Your task to perform on an android device: toggle notifications settings in the gmail app Image 0: 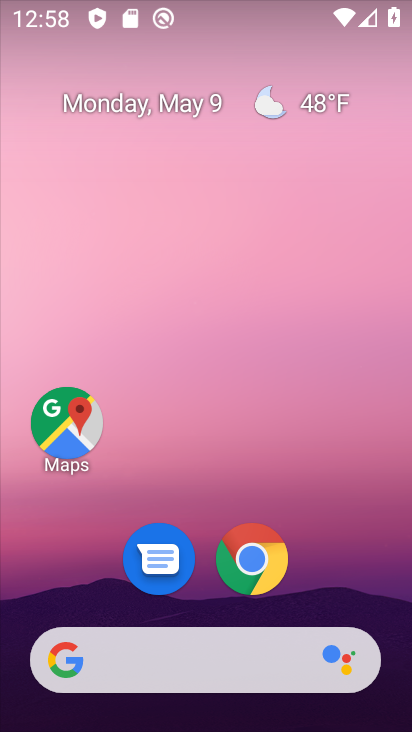
Step 0: drag from (199, 598) to (247, 197)
Your task to perform on an android device: toggle notifications settings in the gmail app Image 1: 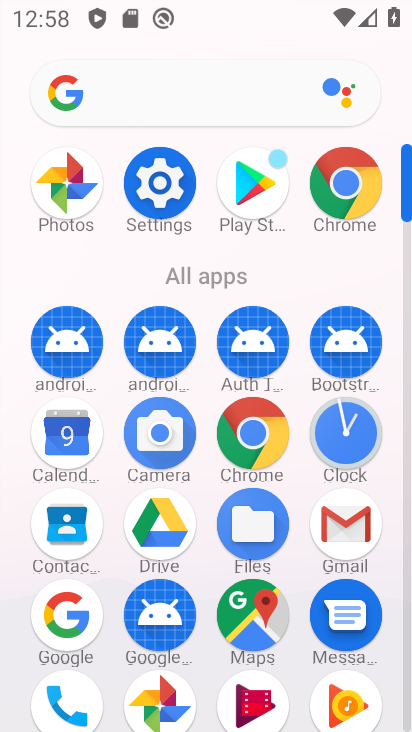
Step 1: click (350, 513)
Your task to perform on an android device: toggle notifications settings in the gmail app Image 2: 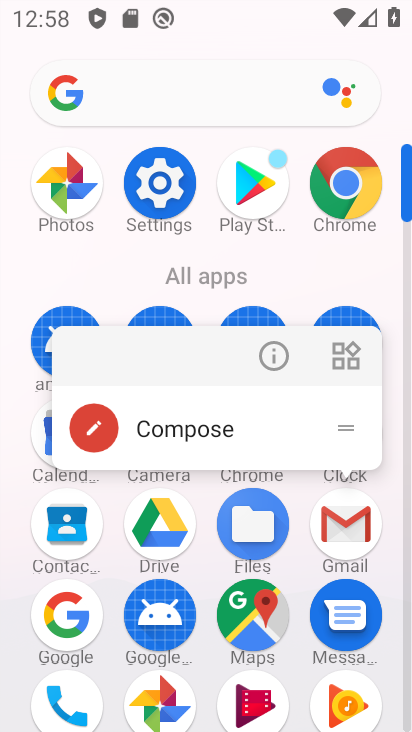
Step 2: click (264, 348)
Your task to perform on an android device: toggle notifications settings in the gmail app Image 3: 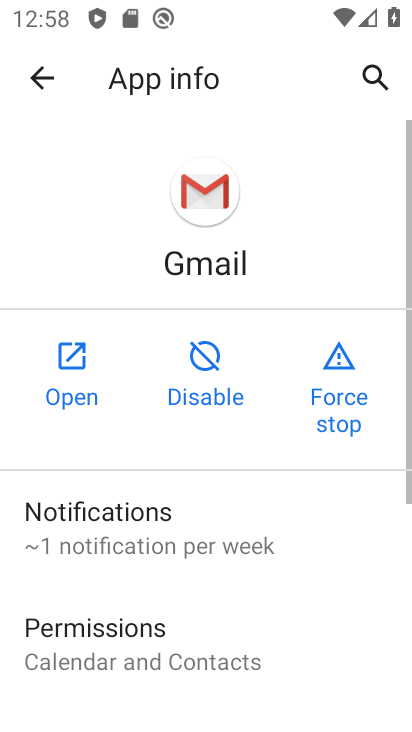
Step 3: click (68, 345)
Your task to perform on an android device: toggle notifications settings in the gmail app Image 4: 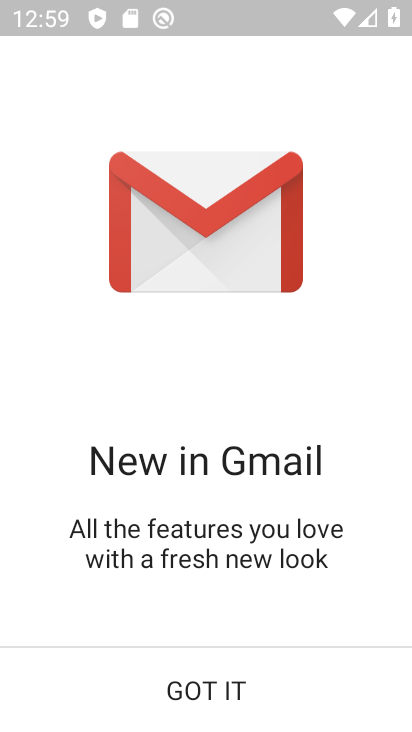
Step 4: click (226, 692)
Your task to perform on an android device: toggle notifications settings in the gmail app Image 5: 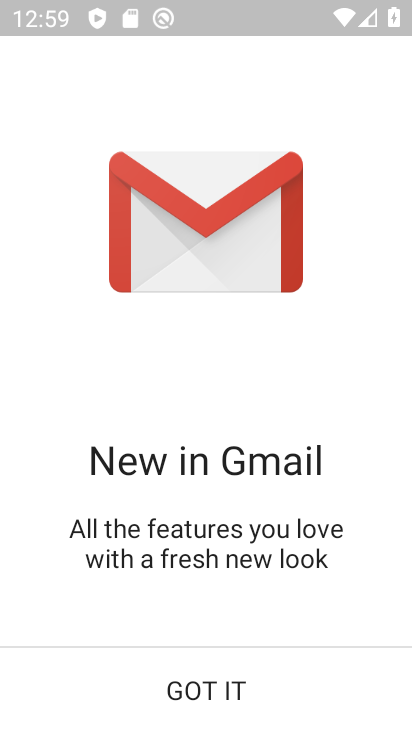
Step 5: click (226, 692)
Your task to perform on an android device: toggle notifications settings in the gmail app Image 6: 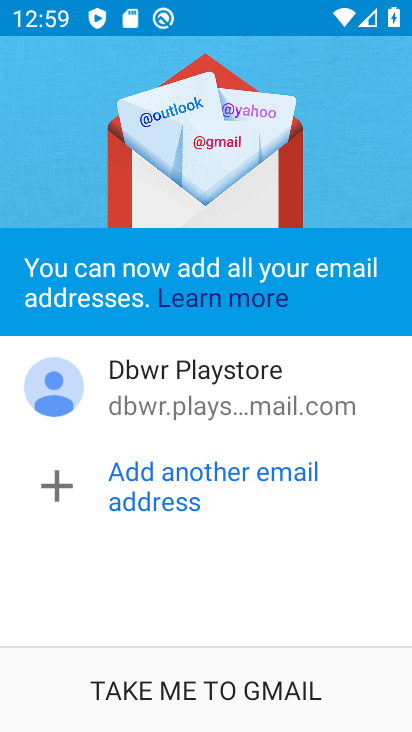
Step 6: click (195, 675)
Your task to perform on an android device: toggle notifications settings in the gmail app Image 7: 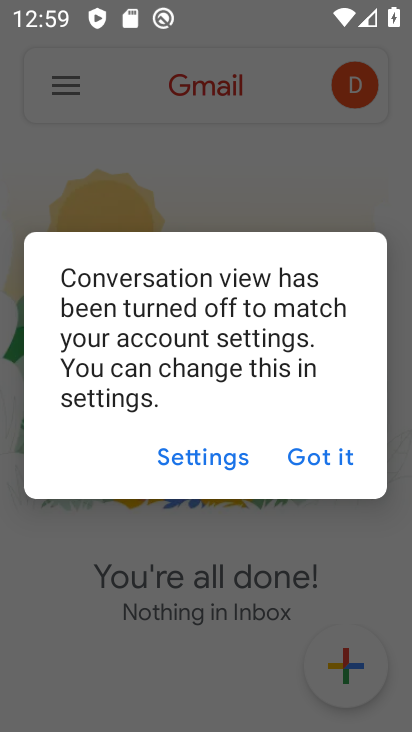
Step 7: click (311, 462)
Your task to perform on an android device: toggle notifications settings in the gmail app Image 8: 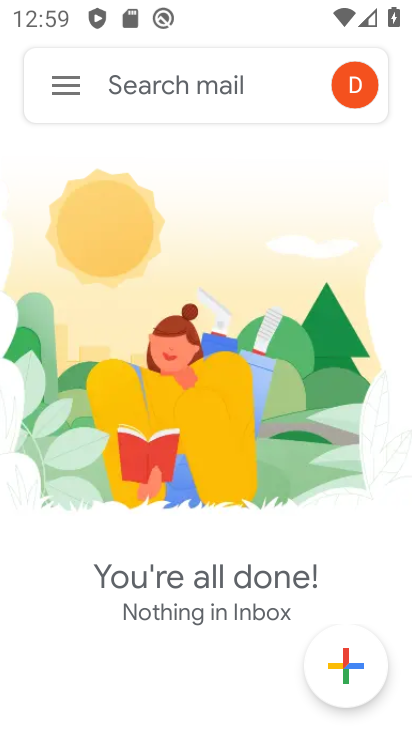
Step 8: click (86, 94)
Your task to perform on an android device: toggle notifications settings in the gmail app Image 9: 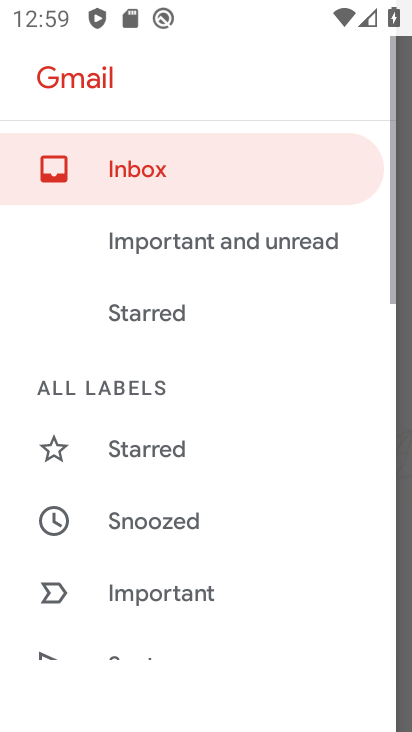
Step 9: drag from (197, 652) to (253, 8)
Your task to perform on an android device: toggle notifications settings in the gmail app Image 10: 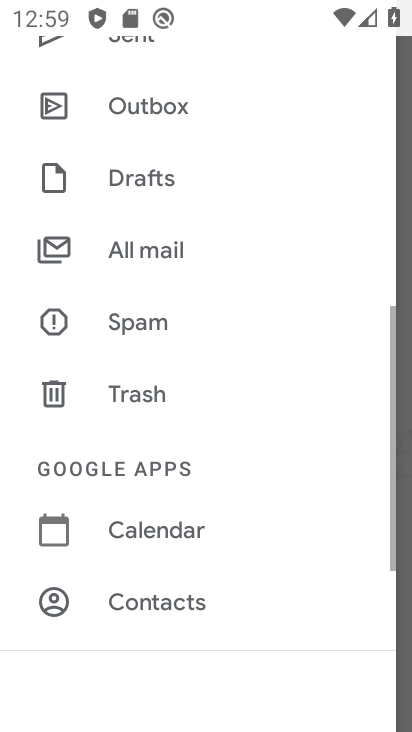
Step 10: drag from (161, 610) to (271, 102)
Your task to perform on an android device: toggle notifications settings in the gmail app Image 11: 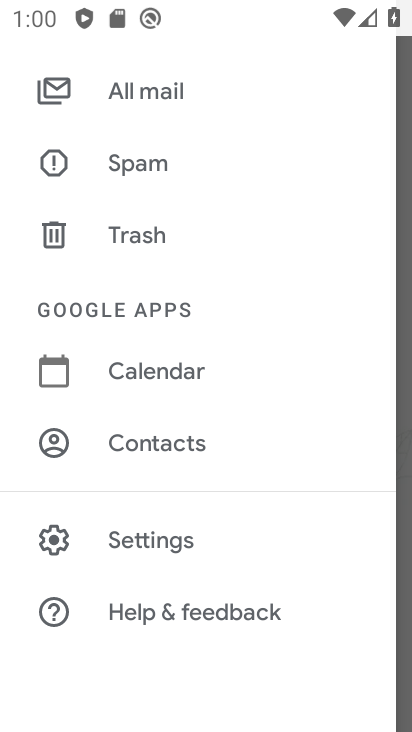
Step 11: click (199, 540)
Your task to perform on an android device: toggle notifications settings in the gmail app Image 12: 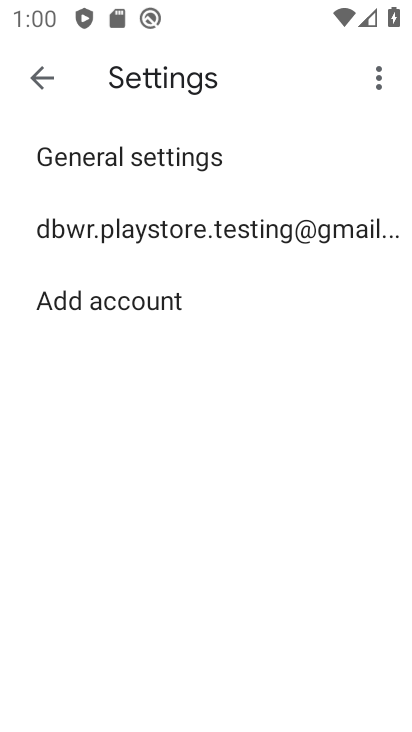
Step 12: click (189, 216)
Your task to perform on an android device: toggle notifications settings in the gmail app Image 13: 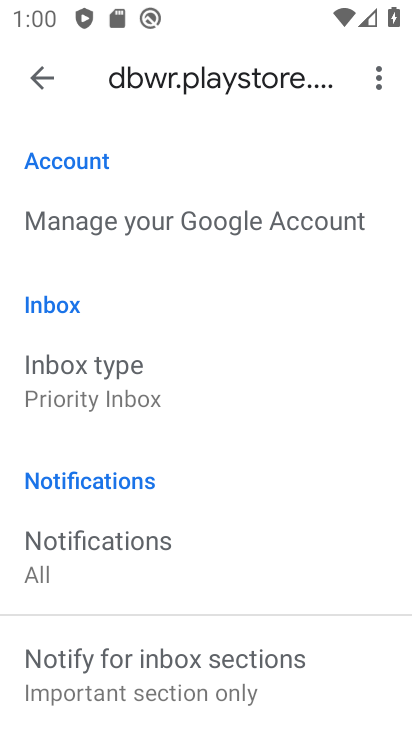
Step 13: drag from (155, 554) to (278, 35)
Your task to perform on an android device: toggle notifications settings in the gmail app Image 14: 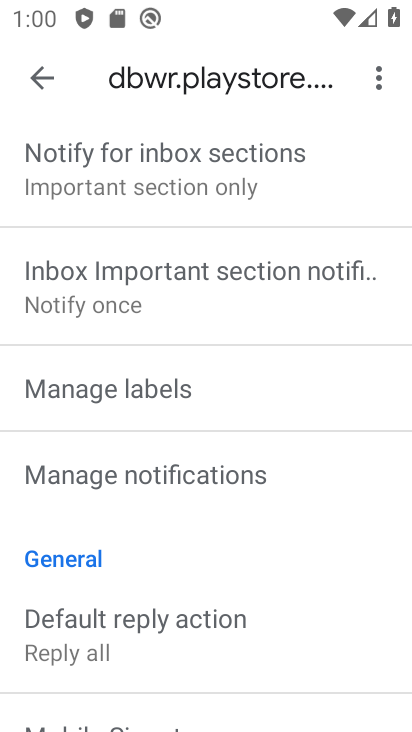
Step 14: click (169, 447)
Your task to perform on an android device: toggle notifications settings in the gmail app Image 15: 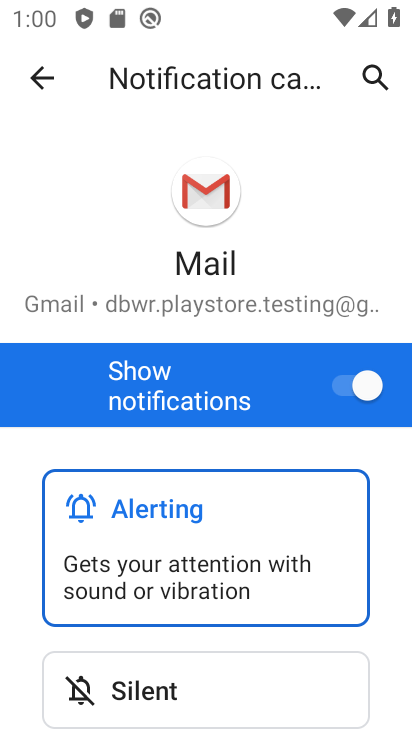
Step 15: click (343, 382)
Your task to perform on an android device: toggle notifications settings in the gmail app Image 16: 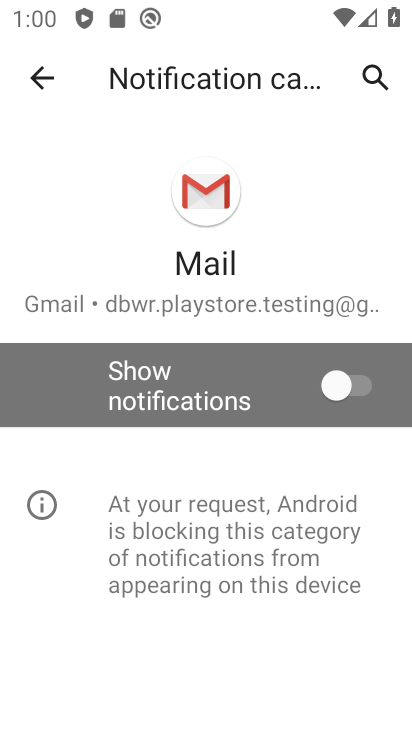
Step 16: task complete